Your task to perform on an android device: toggle airplane mode Image 0: 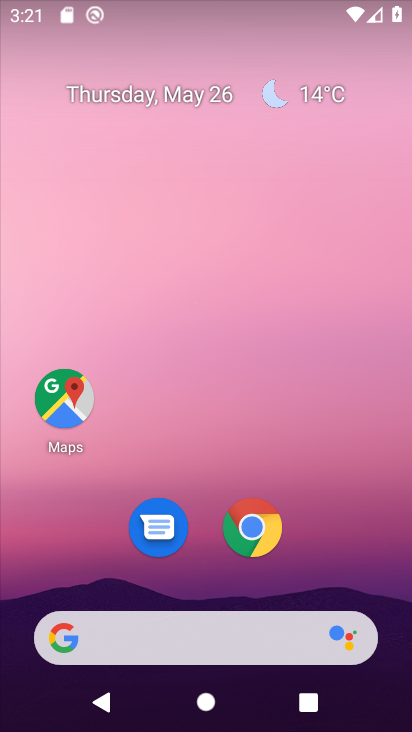
Step 0: drag from (372, 601) to (269, 158)
Your task to perform on an android device: toggle airplane mode Image 1: 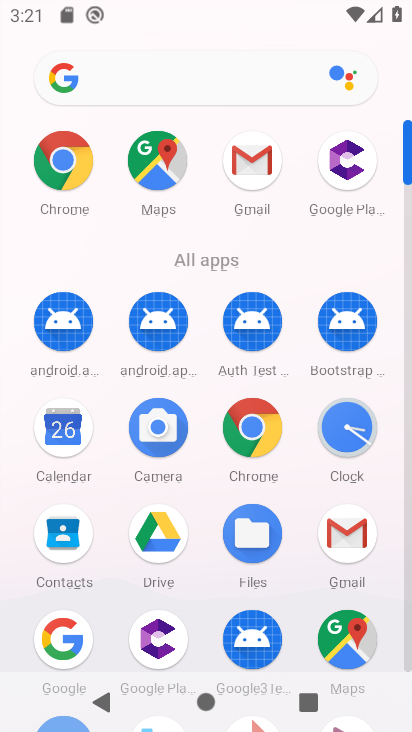
Step 1: click (407, 642)
Your task to perform on an android device: toggle airplane mode Image 2: 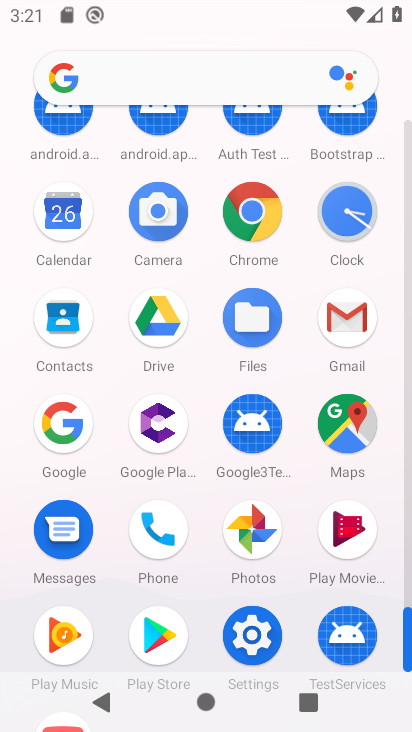
Step 2: click (266, 642)
Your task to perform on an android device: toggle airplane mode Image 3: 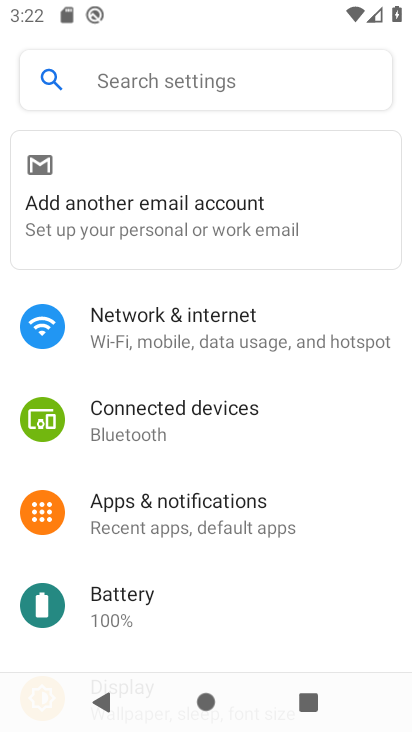
Step 3: click (275, 316)
Your task to perform on an android device: toggle airplane mode Image 4: 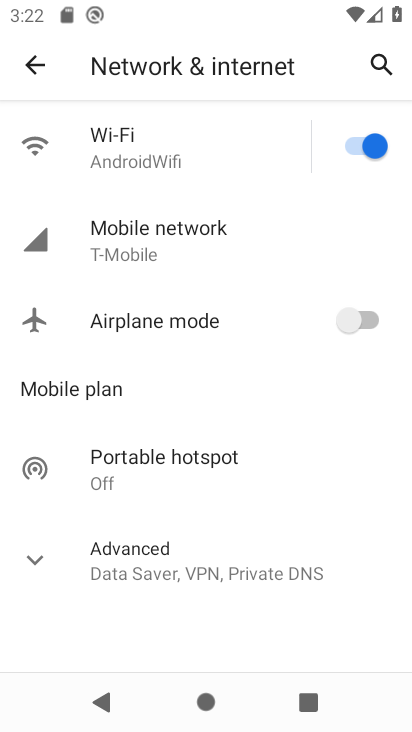
Step 4: click (270, 327)
Your task to perform on an android device: toggle airplane mode Image 5: 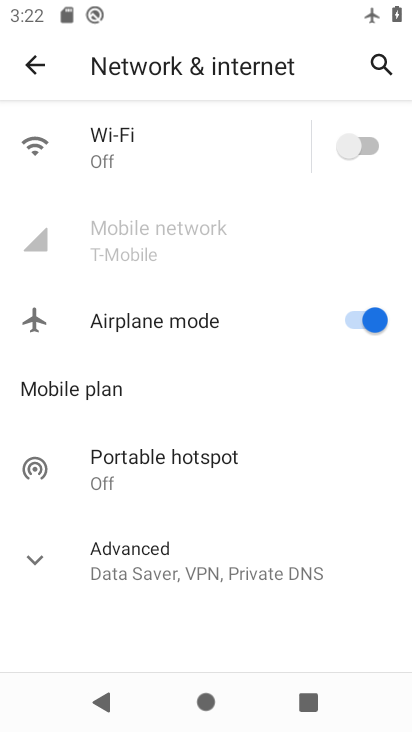
Step 5: task complete